Your task to perform on an android device: Open sound settings Image 0: 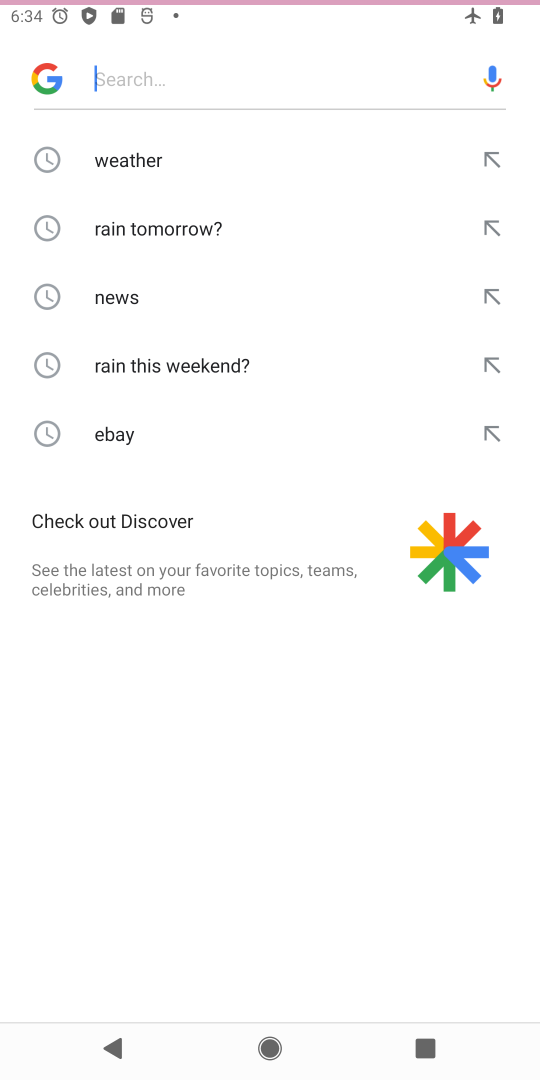
Step 0: press home button
Your task to perform on an android device: Open sound settings Image 1: 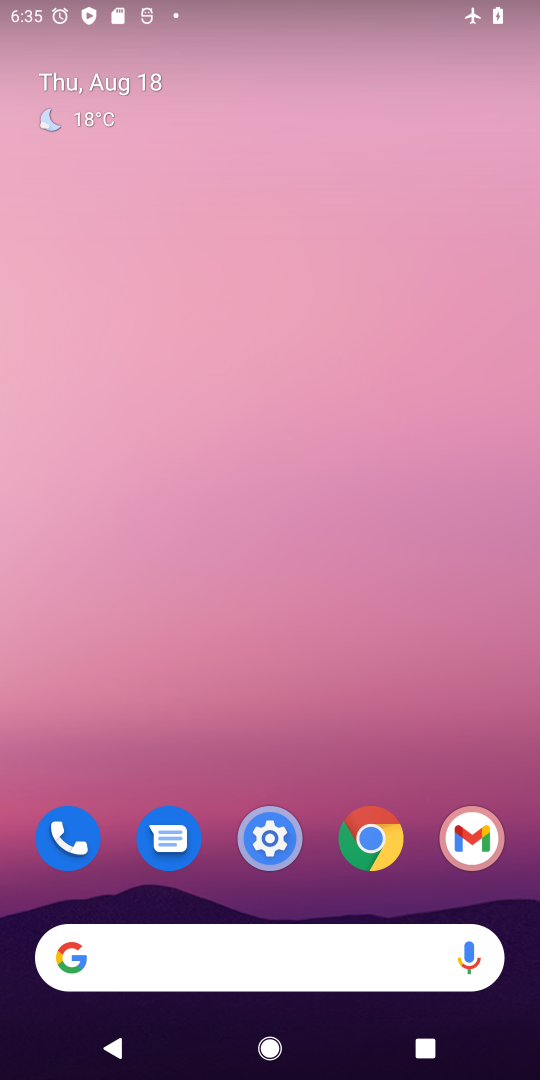
Step 1: click (259, 843)
Your task to perform on an android device: Open sound settings Image 2: 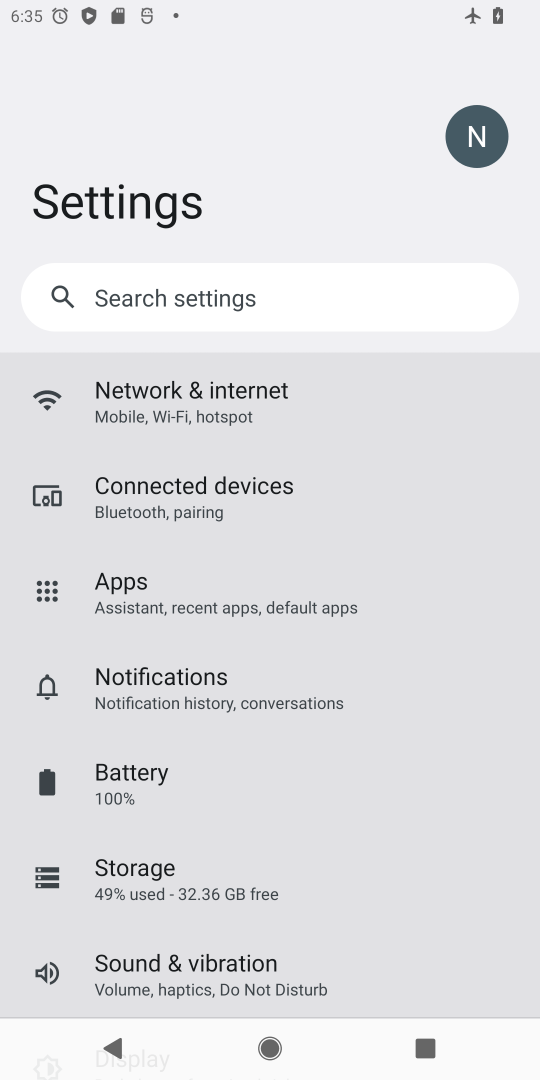
Step 2: drag from (422, 899) to (360, 390)
Your task to perform on an android device: Open sound settings Image 3: 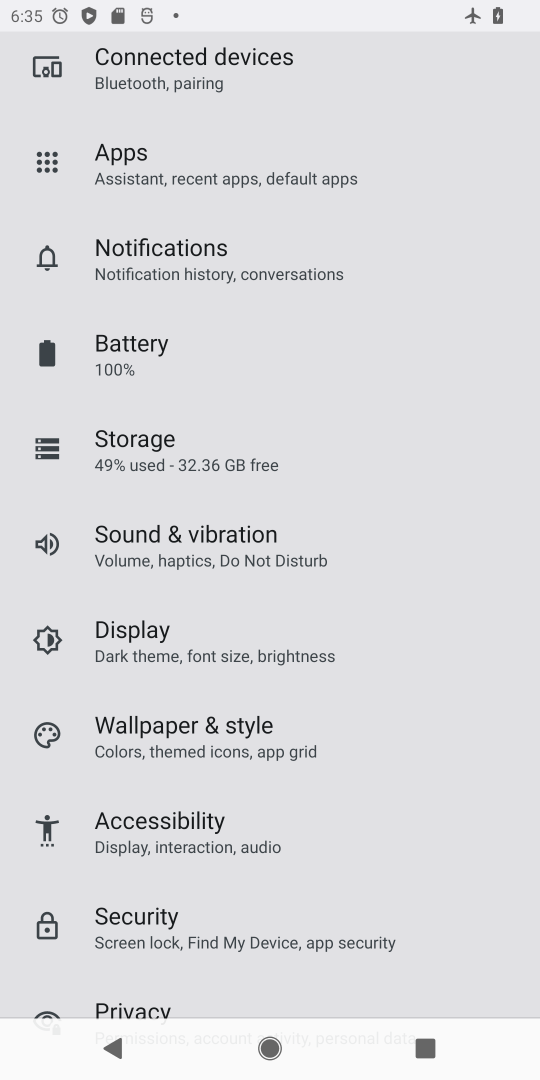
Step 3: click (212, 552)
Your task to perform on an android device: Open sound settings Image 4: 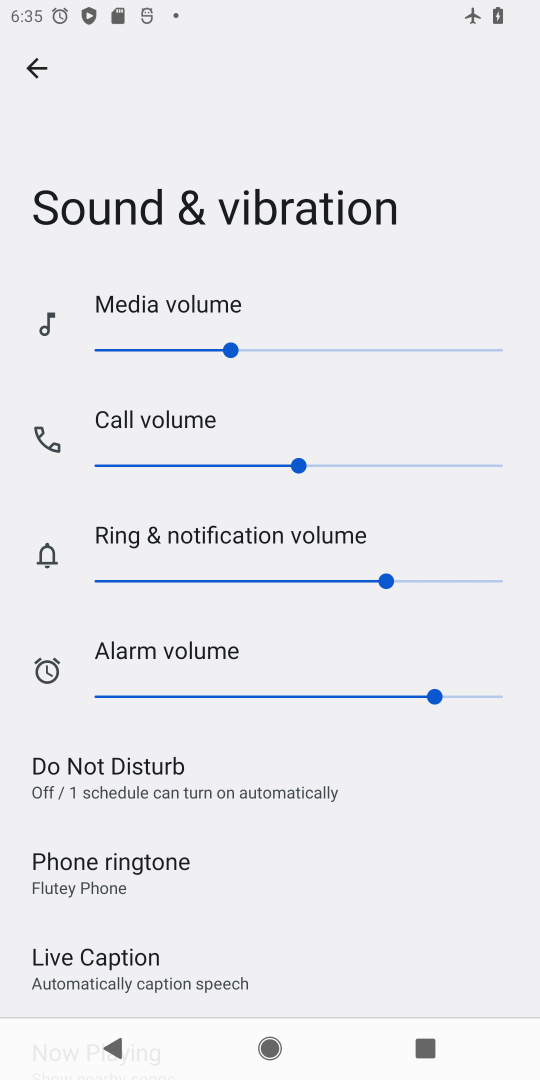
Step 4: task complete